Your task to perform on an android device: Open Chrome and go to the settings page Image 0: 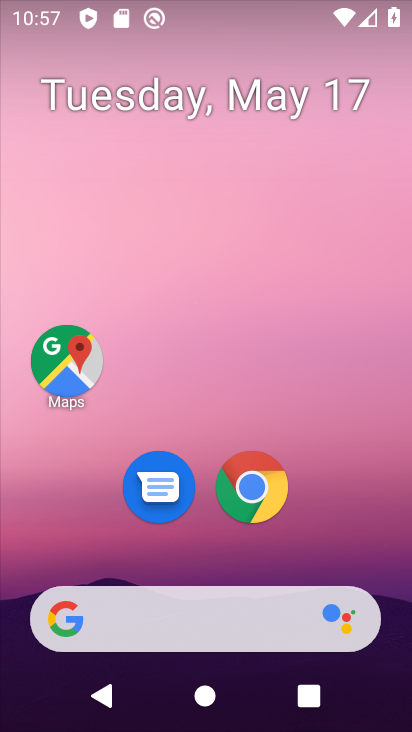
Step 0: click (269, 524)
Your task to perform on an android device: Open Chrome and go to the settings page Image 1: 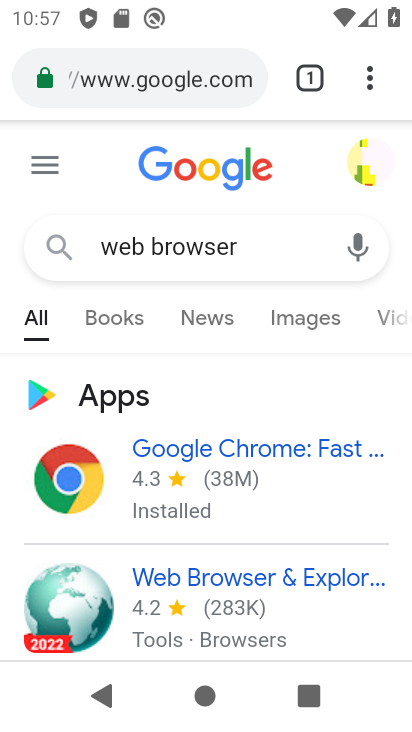
Step 1: task complete